Your task to perform on an android device: Show the shopping cart on ebay. Add "logitech g pro" to the cart on ebay Image 0: 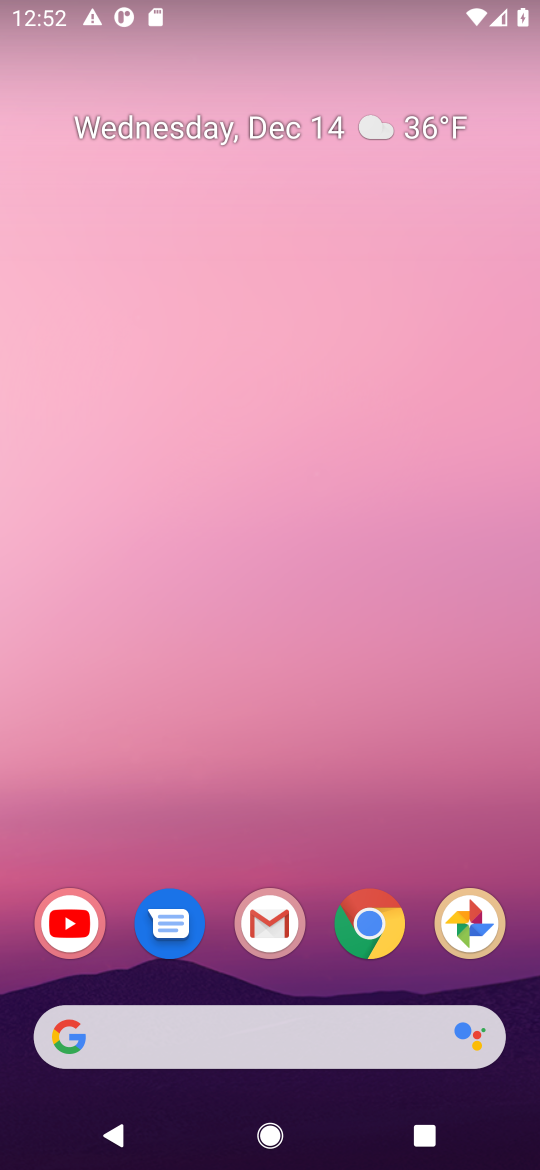
Step 0: click (171, 1033)
Your task to perform on an android device: Show the shopping cart on ebay. Add "logitech g pro" to the cart on ebay Image 1: 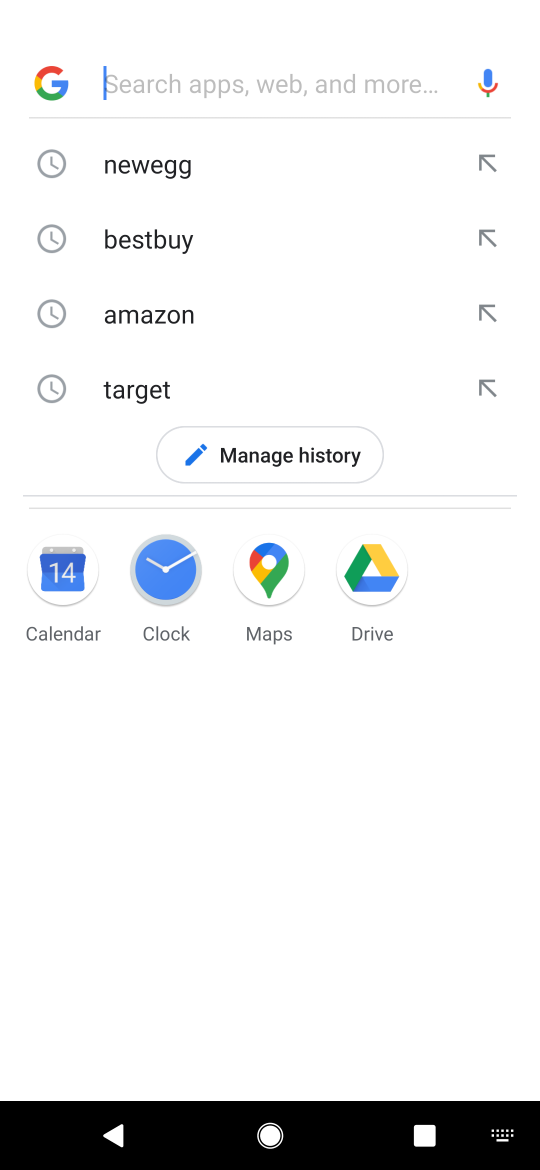
Step 1: type "ebay.com"
Your task to perform on an android device: Show the shopping cart on ebay. Add "logitech g pro" to the cart on ebay Image 2: 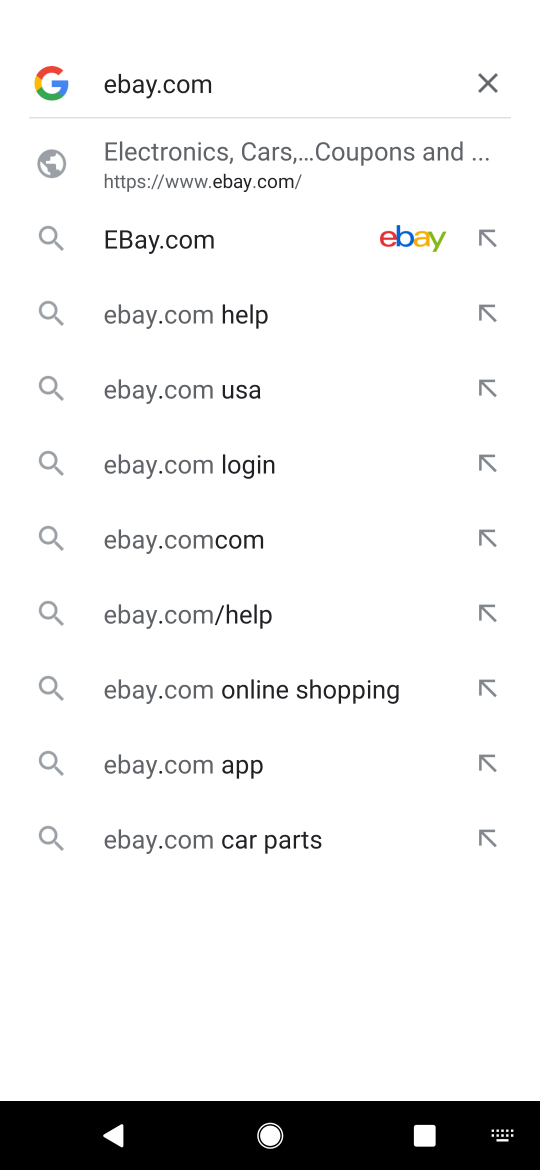
Step 2: click (192, 226)
Your task to perform on an android device: Show the shopping cart on ebay. Add "logitech g pro" to the cart on ebay Image 3: 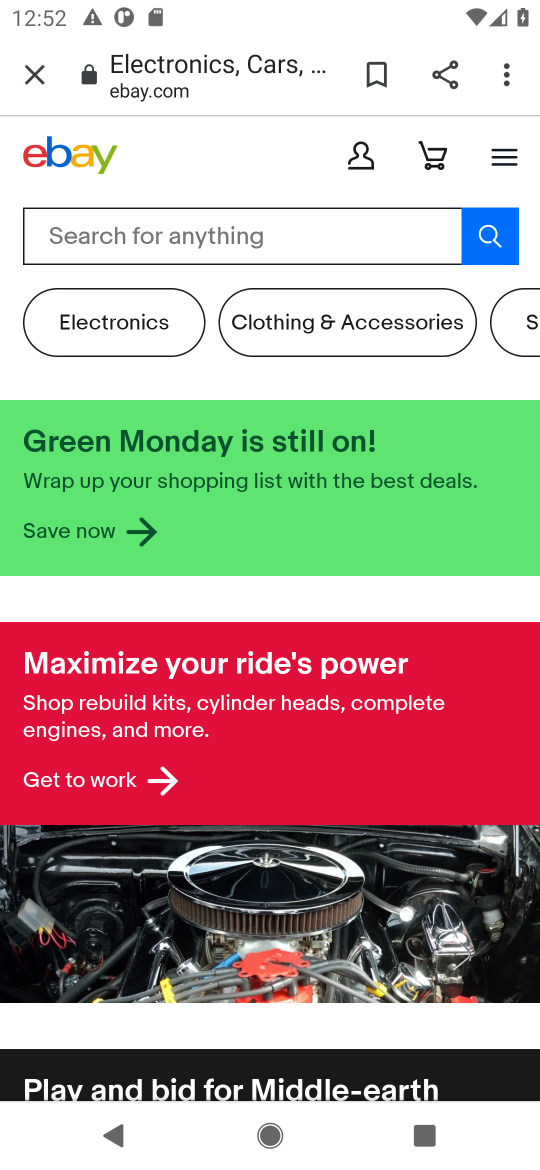
Step 3: click (192, 226)
Your task to perform on an android device: Show the shopping cart on ebay. Add "logitech g pro" to the cart on ebay Image 4: 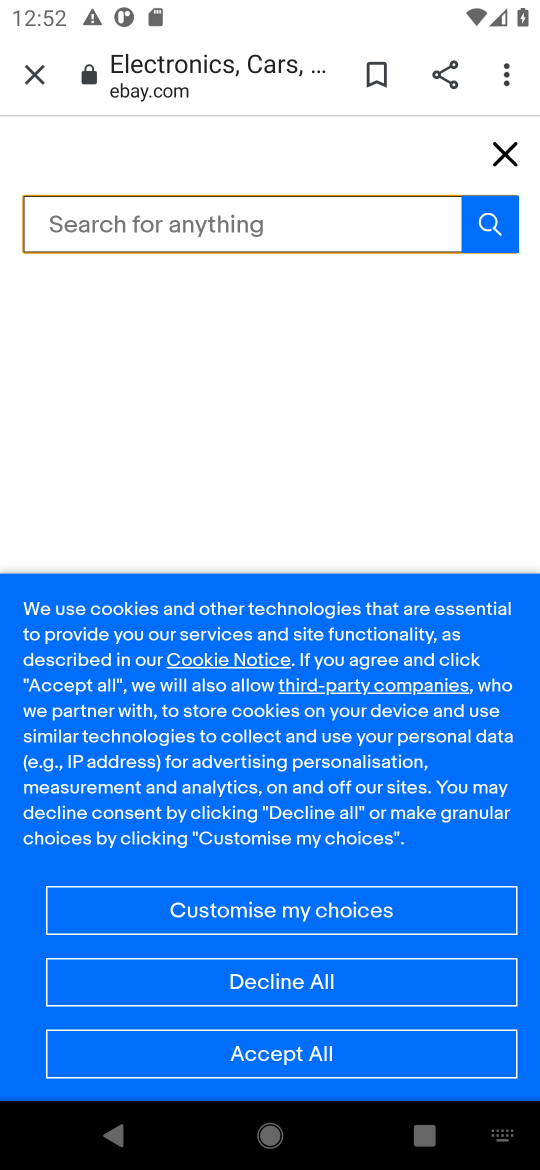
Step 4: type "logitech g pro"
Your task to perform on an android device: Show the shopping cart on ebay. Add "logitech g pro" to the cart on ebay Image 5: 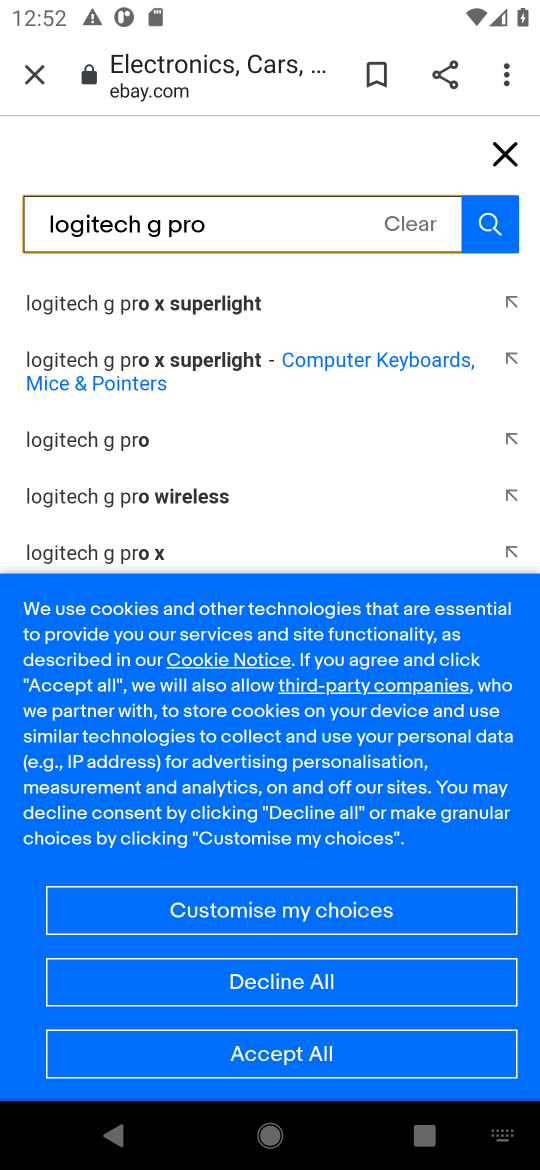
Step 5: click (481, 215)
Your task to perform on an android device: Show the shopping cart on ebay. Add "logitech g pro" to the cart on ebay Image 6: 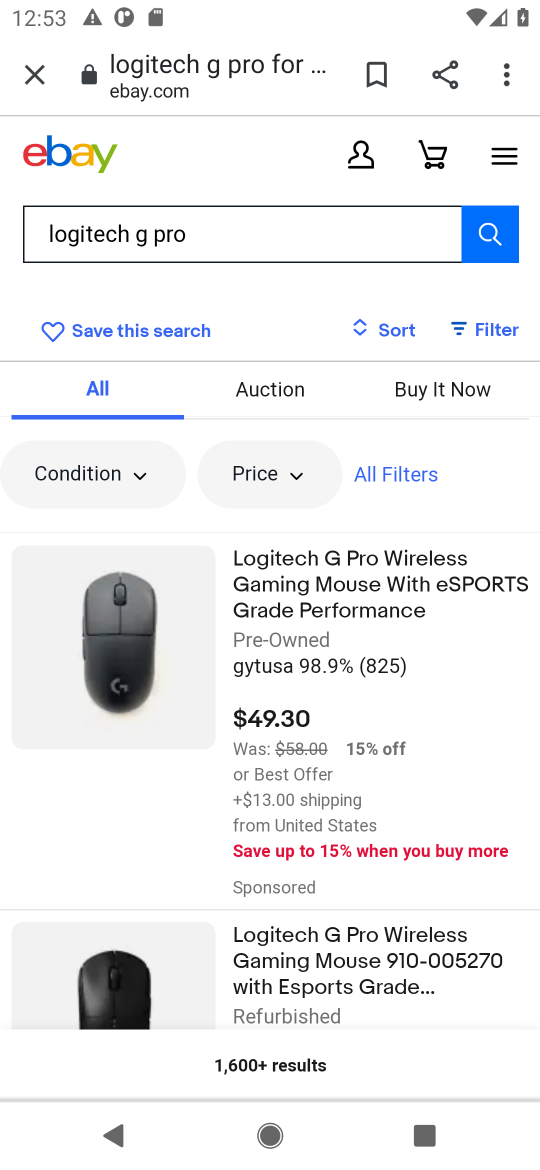
Step 6: click (363, 612)
Your task to perform on an android device: Show the shopping cart on ebay. Add "logitech g pro" to the cart on ebay Image 7: 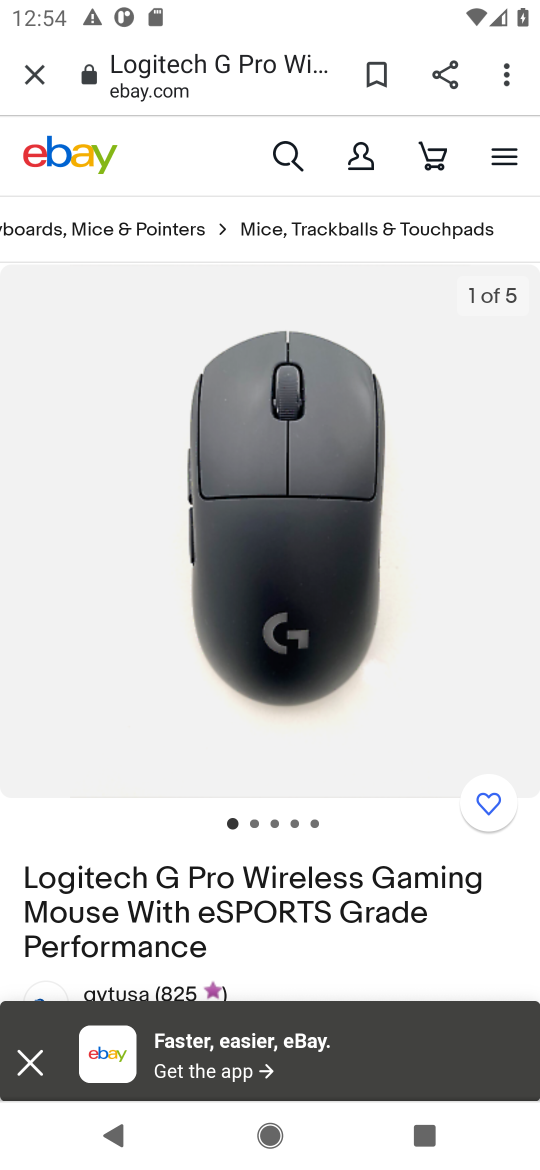
Step 7: drag from (330, 916) to (298, 374)
Your task to perform on an android device: Show the shopping cart on ebay. Add "logitech g pro" to the cart on ebay Image 8: 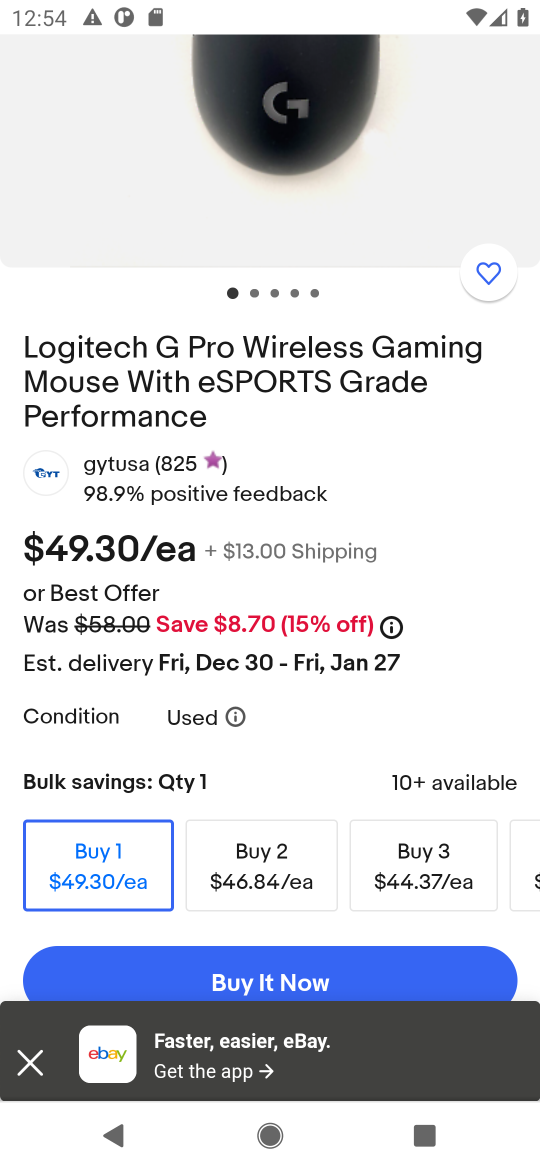
Step 8: click (338, 952)
Your task to perform on an android device: Show the shopping cart on ebay. Add "logitech g pro" to the cart on ebay Image 9: 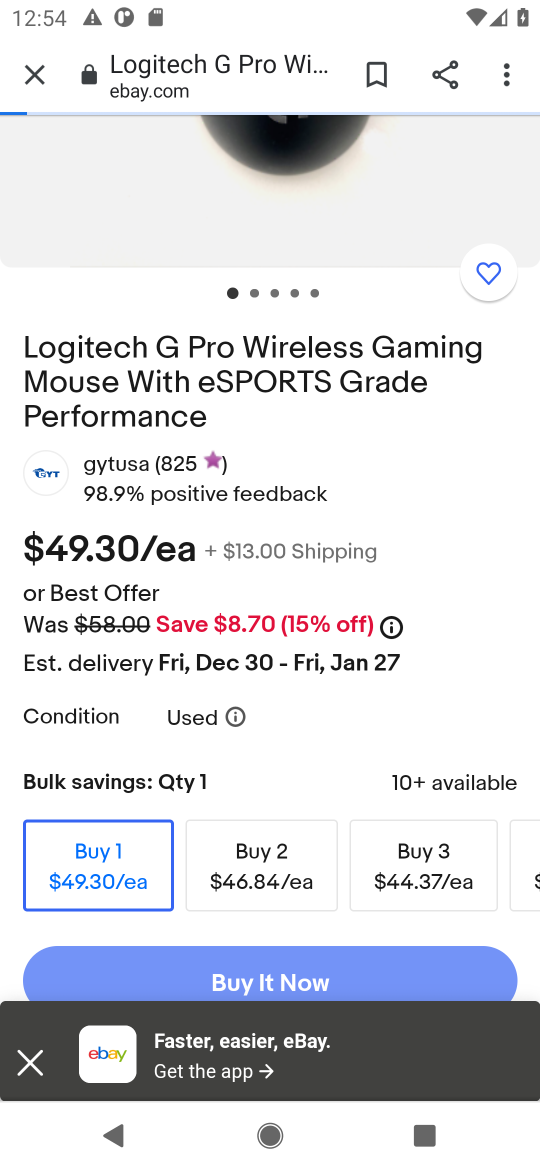
Step 9: task complete